Your task to perform on an android device: What's on my calendar tomorrow? Image 0: 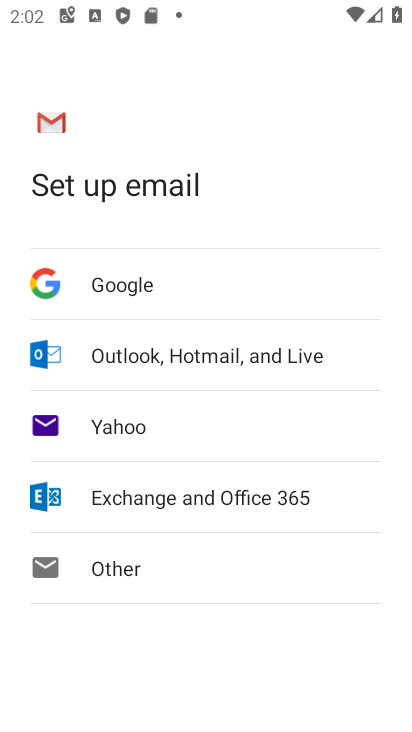
Step 0: press home button
Your task to perform on an android device: What's on my calendar tomorrow? Image 1: 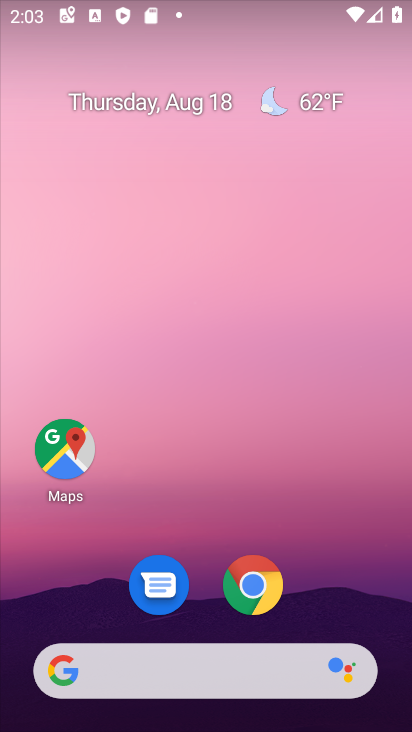
Step 1: drag from (315, 503) to (310, 9)
Your task to perform on an android device: What's on my calendar tomorrow? Image 2: 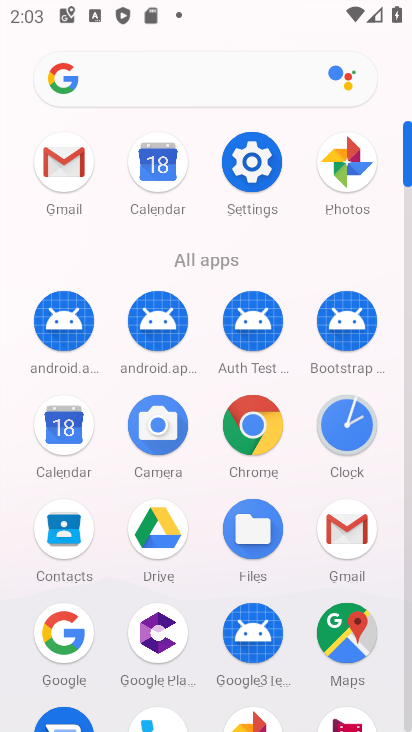
Step 2: click (161, 168)
Your task to perform on an android device: What's on my calendar tomorrow? Image 3: 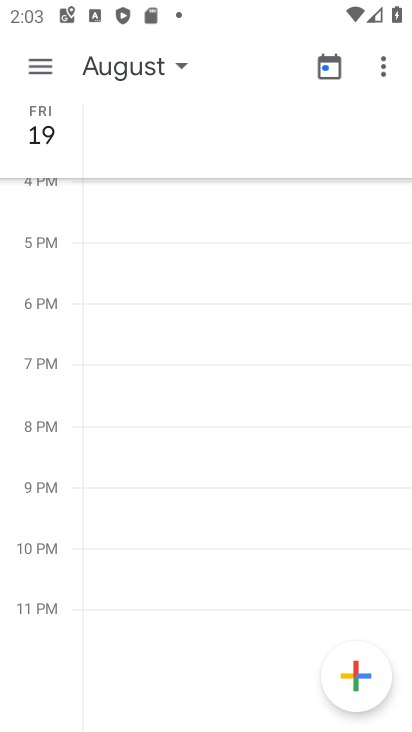
Step 3: task complete